Your task to perform on an android device: Open location settings Image 0: 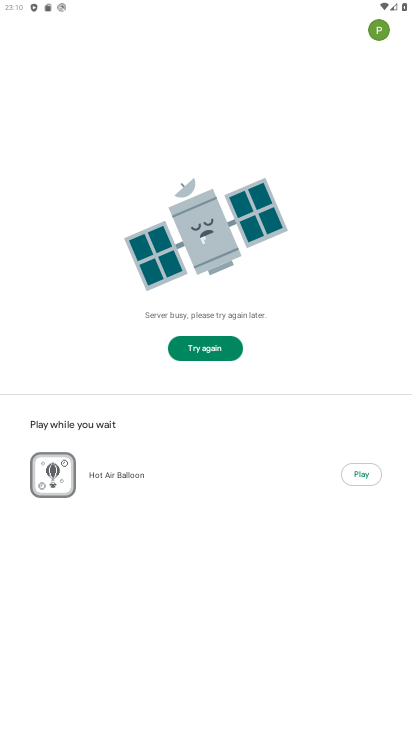
Step 0: press home button
Your task to perform on an android device: Open location settings Image 1: 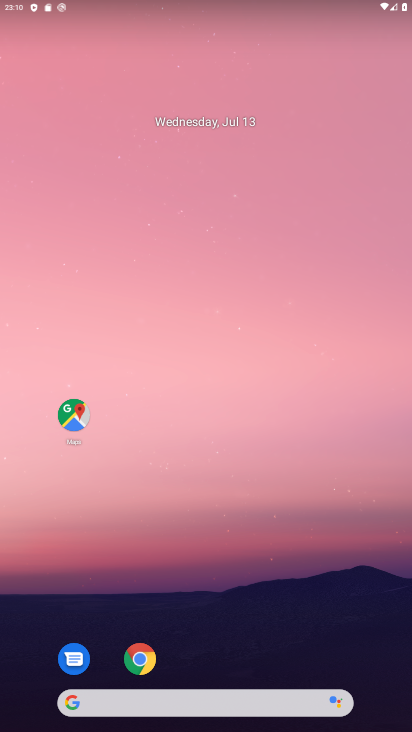
Step 1: drag from (354, 647) to (334, 68)
Your task to perform on an android device: Open location settings Image 2: 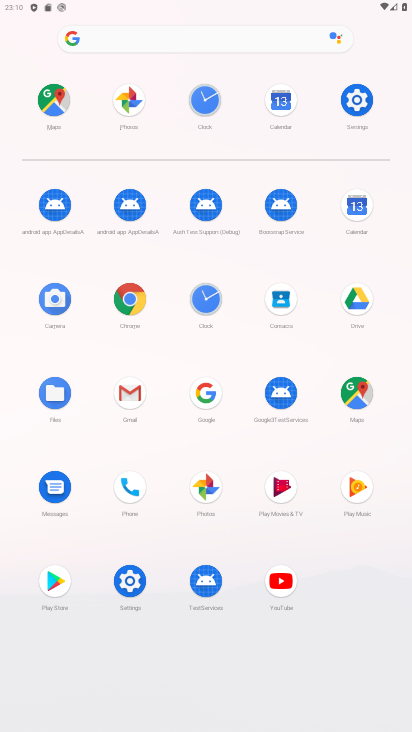
Step 2: click (129, 579)
Your task to perform on an android device: Open location settings Image 3: 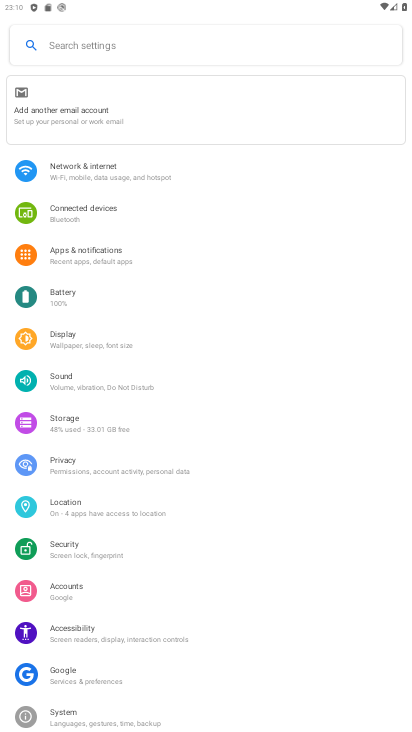
Step 3: click (64, 511)
Your task to perform on an android device: Open location settings Image 4: 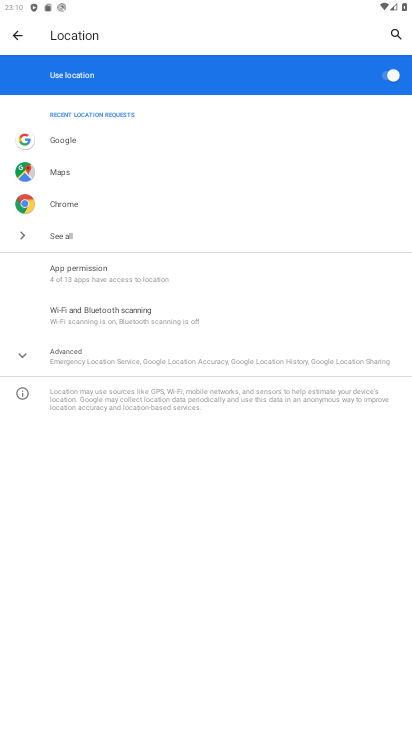
Step 4: click (21, 359)
Your task to perform on an android device: Open location settings Image 5: 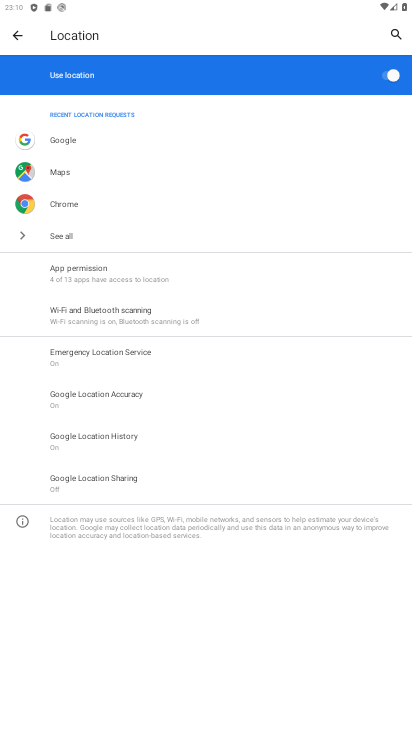
Step 5: task complete